Your task to perform on an android device: star an email in the gmail app Image 0: 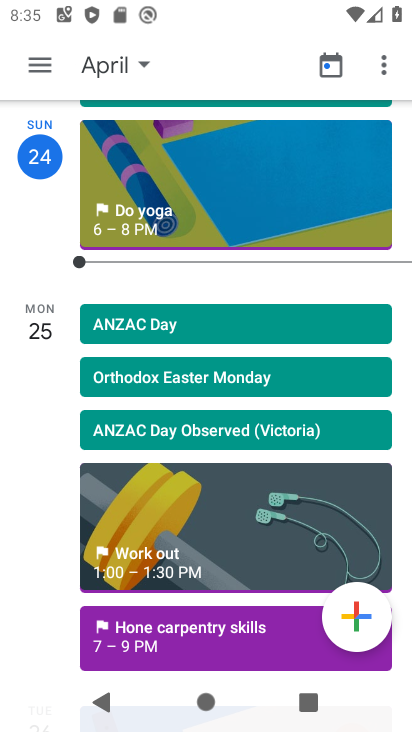
Step 0: press home button
Your task to perform on an android device: star an email in the gmail app Image 1: 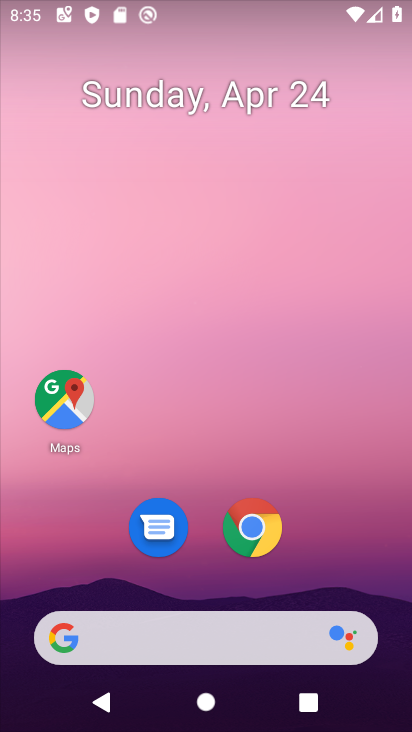
Step 1: drag from (393, 576) to (334, 50)
Your task to perform on an android device: star an email in the gmail app Image 2: 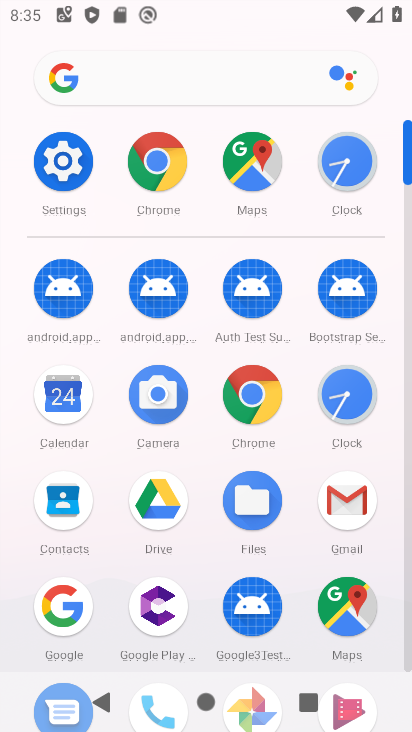
Step 2: click (342, 493)
Your task to perform on an android device: star an email in the gmail app Image 3: 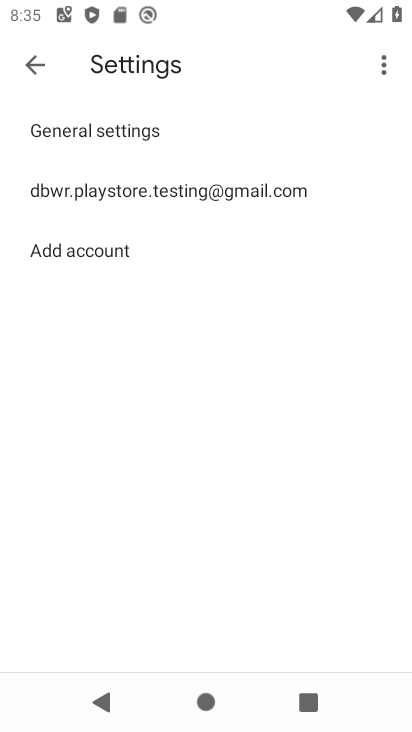
Step 3: click (40, 61)
Your task to perform on an android device: star an email in the gmail app Image 4: 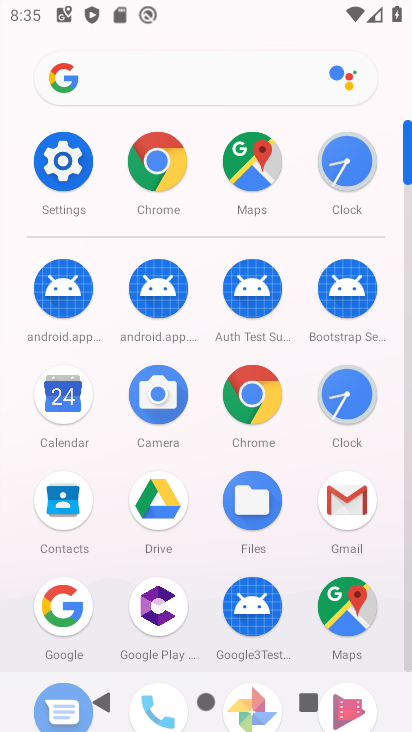
Step 4: click (355, 508)
Your task to perform on an android device: star an email in the gmail app Image 5: 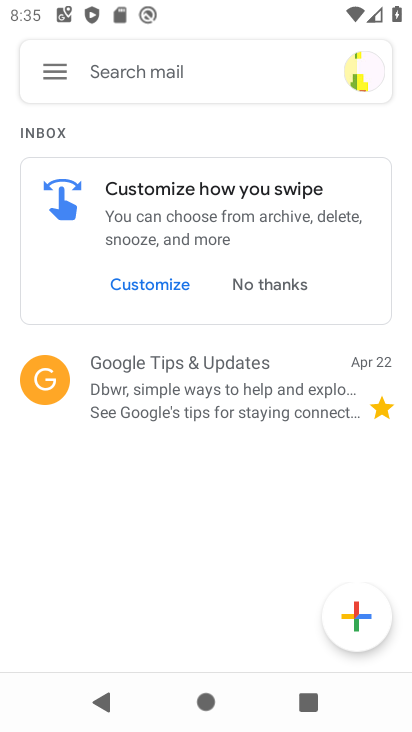
Step 5: click (43, 70)
Your task to perform on an android device: star an email in the gmail app Image 6: 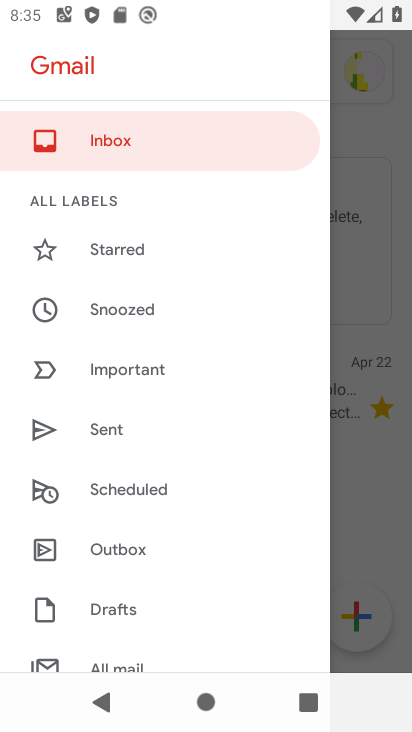
Step 6: click (169, 132)
Your task to perform on an android device: star an email in the gmail app Image 7: 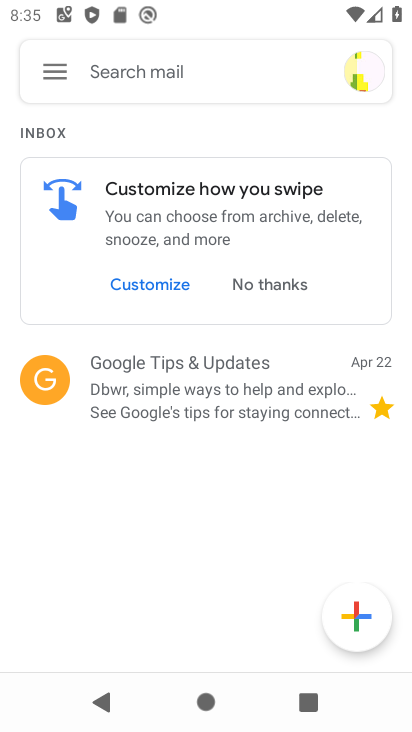
Step 7: click (390, 404)
Your task to perform on an android device: star an email in the gmail app Image 8: 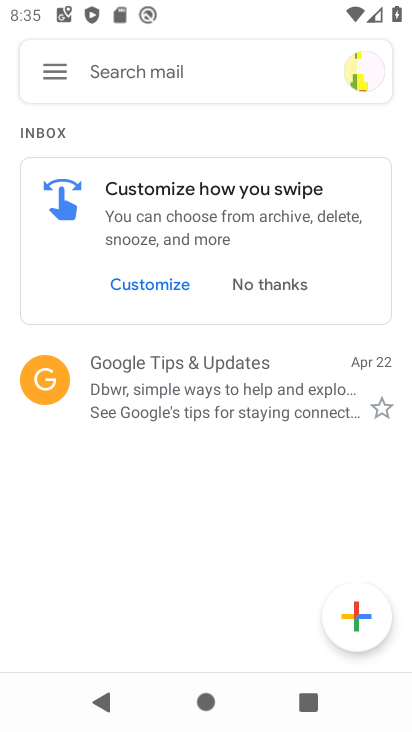
Step 8: click (376, 410)
Your task to perform on an android device: star an email in the gmail app Image 9: 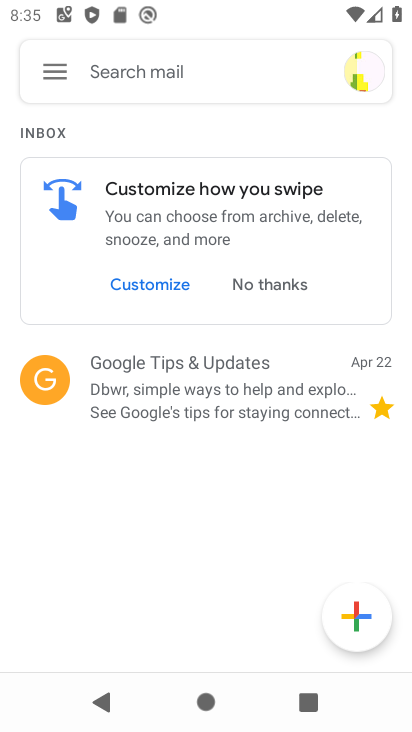
Step 9: task complete